Your task to perform on an android device: turn on bluetooth scan Image 0: 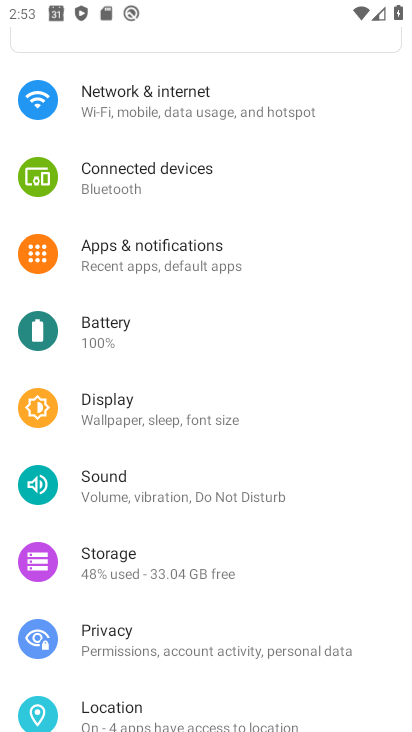
Step 0: click (123, 712)
Your task to perform on an android device: turn on bluetooth scan Image 1: 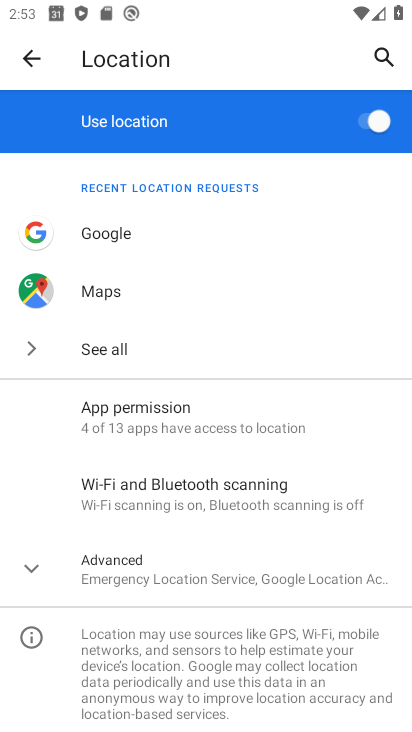
Step 1: click (172, 490)
Your task to perform on an android device: turn on bluetooth scan Image 2: 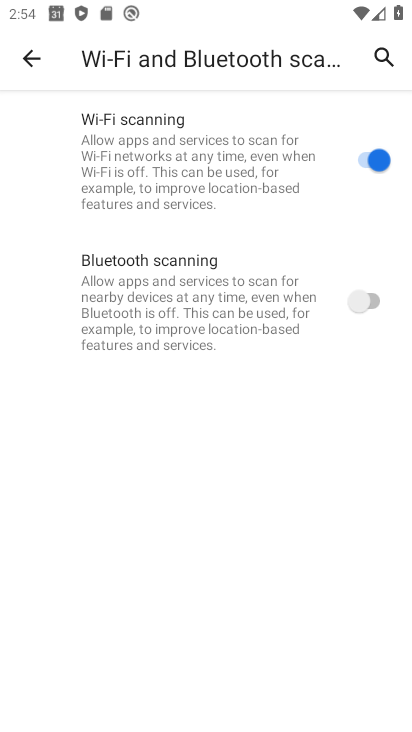
Step 2: click (366, 299)
Your task to perform on an android device: turn on bluetooth scan Image 3: 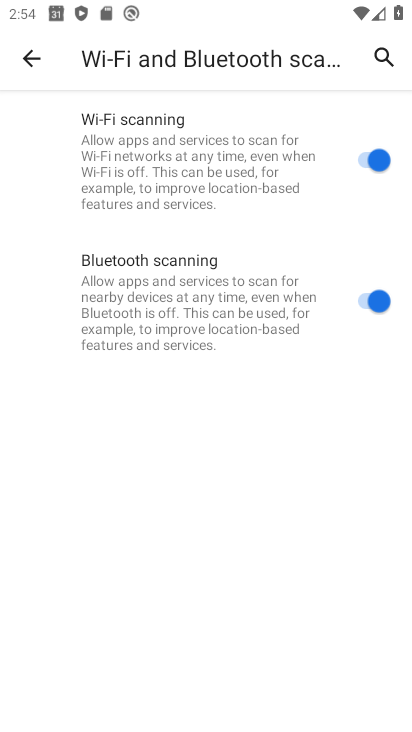
Step 3: task complete